Your task to perform on an android device: turn on bluetooth scan Image 0: 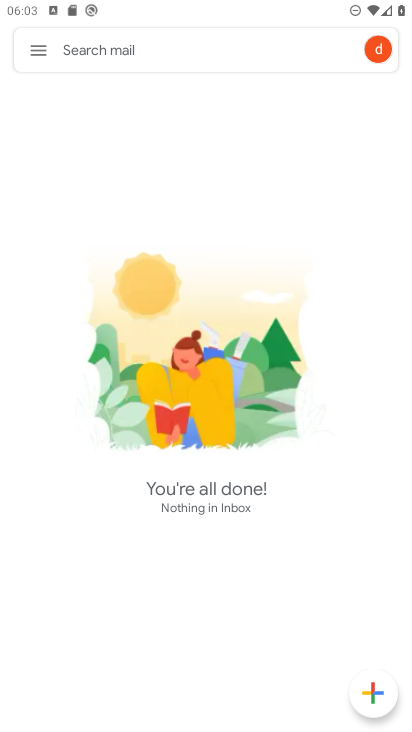
Step 0: press home button
Your task to perform on an android device: turn on bluetooth scan Image 1: 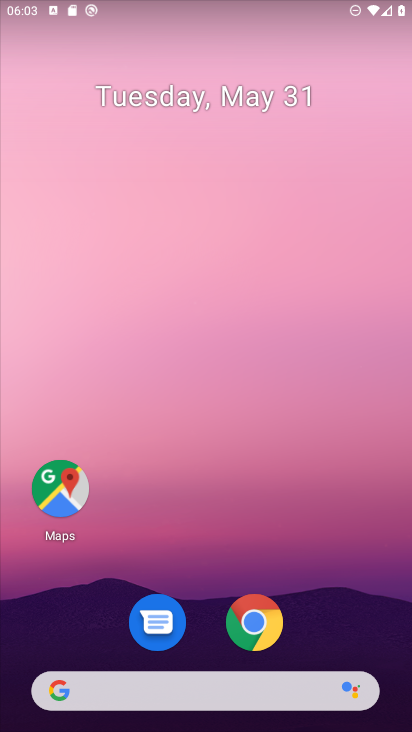
Step 1: drag from (251, 711) to (346, 37)
Your task to perform on an android device: turn on bluetooth scan Image 2: 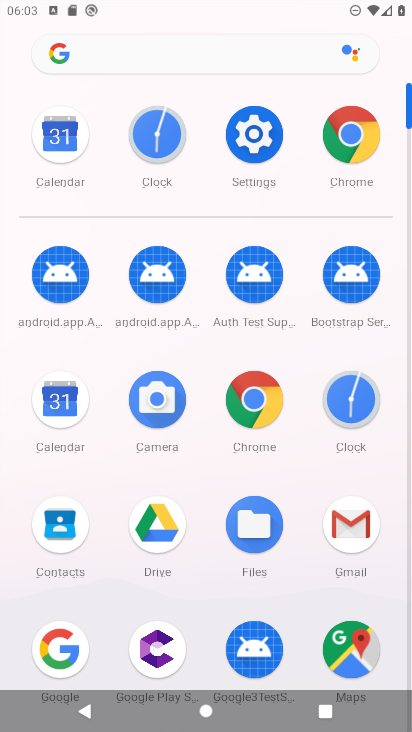
Step 2: click (252, 134)
Your task to perform on an android device: turn on bluetooth scan Image 3: 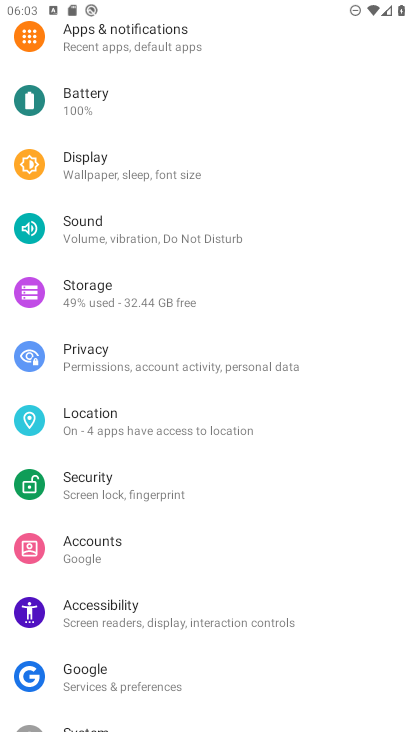
Step 3: click (114, 406)
Your task to perform on an android device: turn on bluetooth scan Image 4: 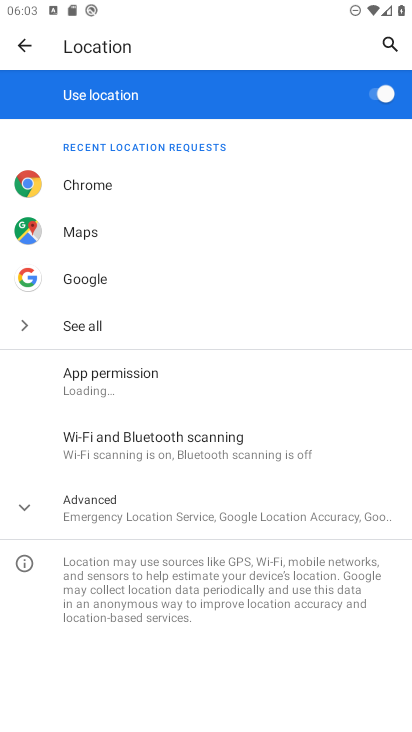
Step 4: click (238, 455)
Your task to perform on an android device: turn on bluetooth scan Image 5: 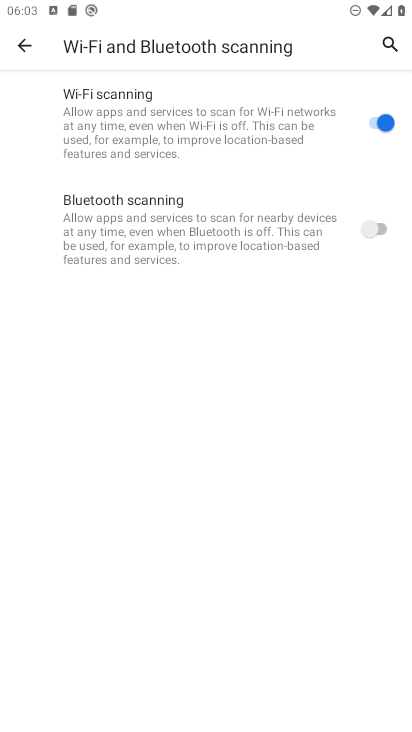
Step 5: click (390, 227)
Your task to perform on an android device: turn on bluetooth scan Image 6: 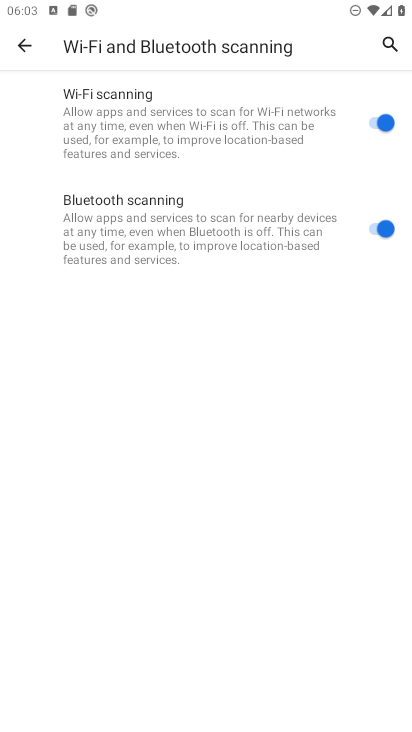
Step 6: task complete